Your task to perform on an android device: open chrome privacy settings Image 0: 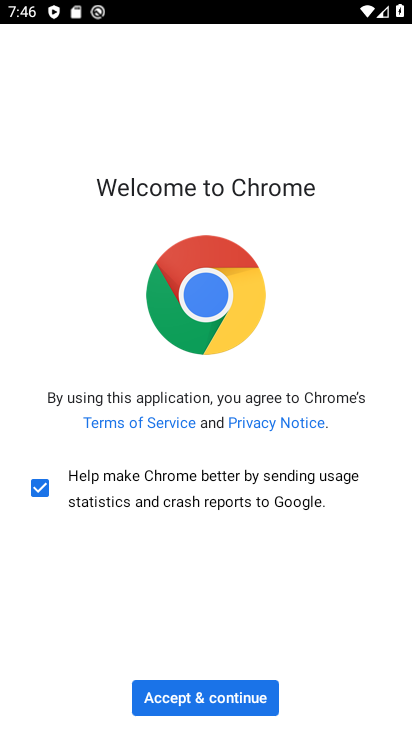
Step 0: click (229, 700)
Your task to perform on an android device: open chrome privacy settings Image 1: 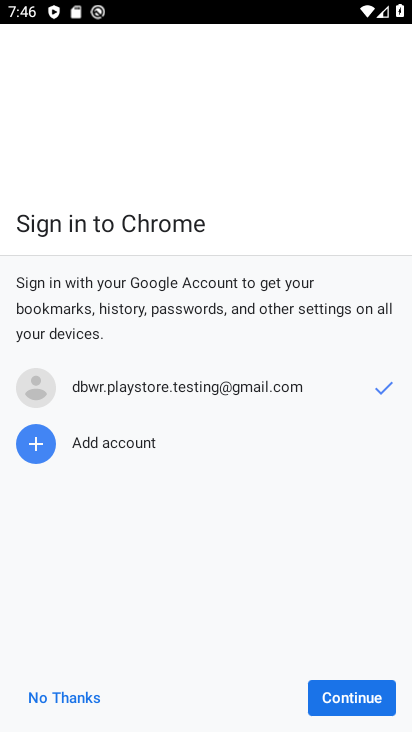
Step 1: click (348, 689)
Your task to perform on an android device: open chrome privacy settings Image 2: 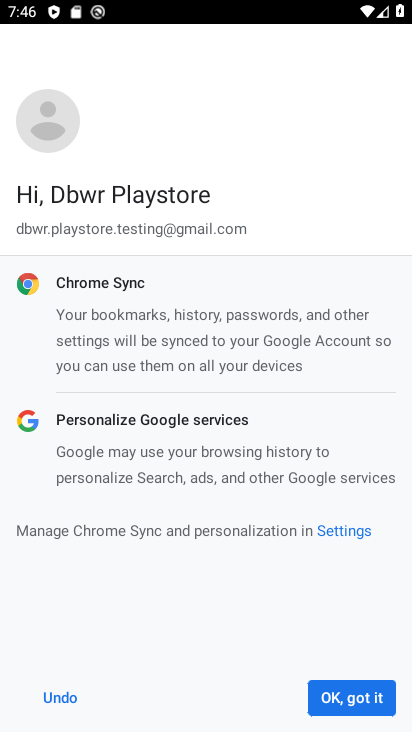
Step 2: click (348, 689)
Your task to perform on an android device: open chrome privacy settings Image 3: 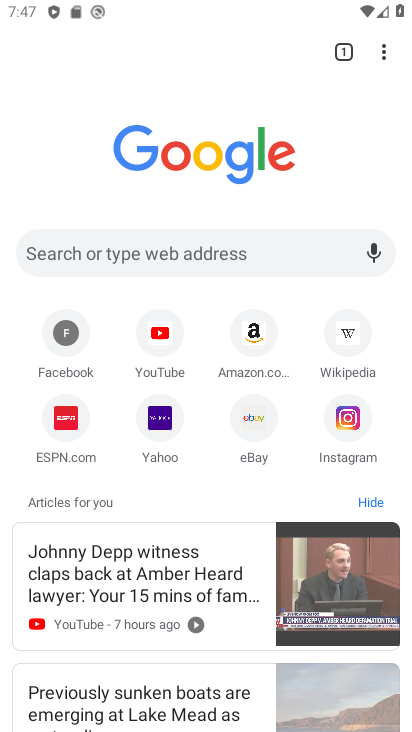
Step 3: click (381, 57)
Your task to perform on an android device: open chrome privacy settings Image 4: 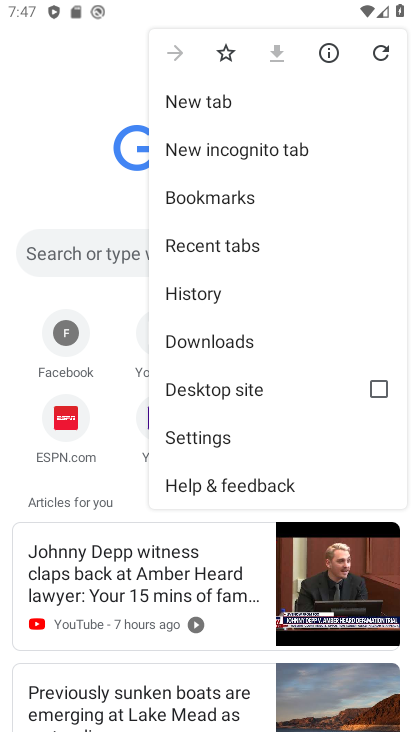
Step 4: click (201, 438)
Your task to perform on an android device: open chrome privacy settings Image 5: 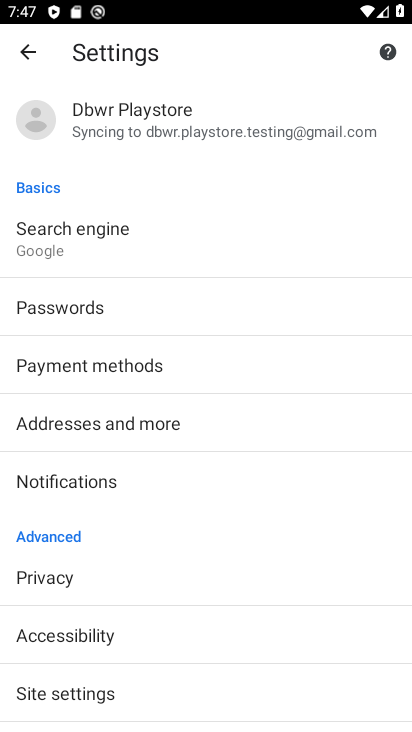
Step 5: click (25, 581)
Your task to perform on an android device: open chrome privacy settings Image 6: 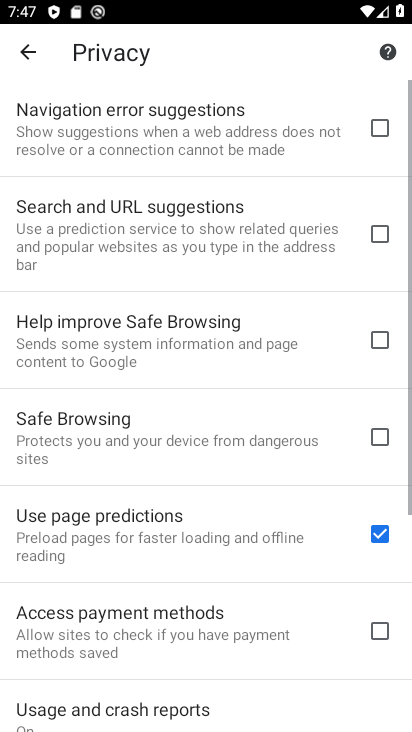
Step 6: task complete